Your task to perform on an android device: see sites visited before in the chrome app Image 0: 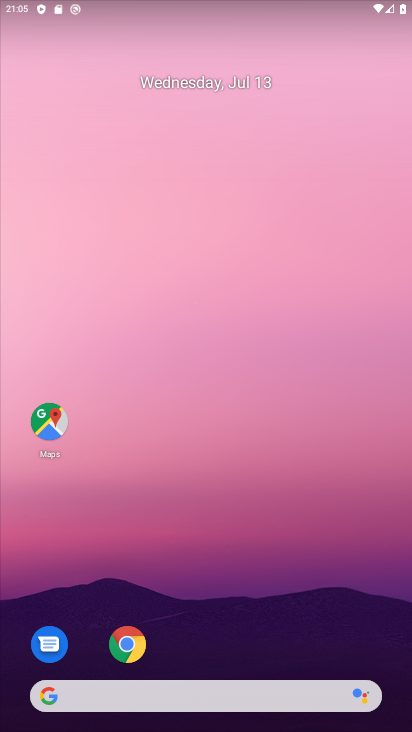
Step 0: click (129, 636)
Your task to perform on an android device: see sites visited before in the chrome app Image 1: 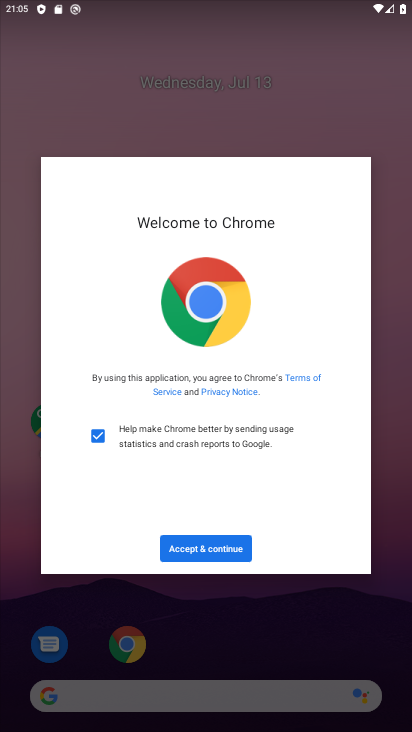
Step 1: click (196, 551)
Your task to perform on an android device: see sites visited before in the chrome app Image 2: 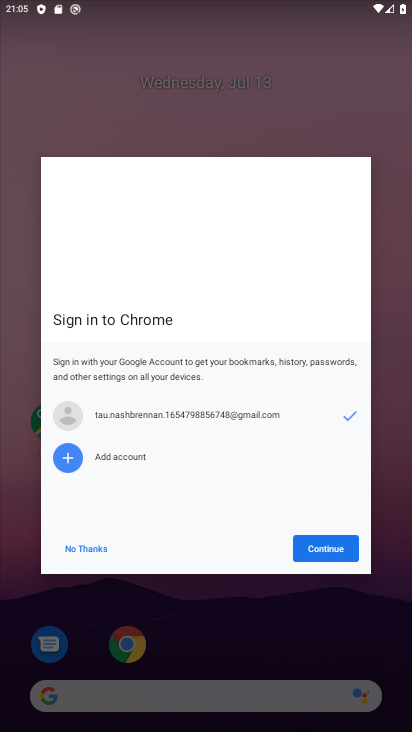
Step 2: click (308, 546)
Your task to perform on an android device: see sites visited before in the chrome app Image 3: 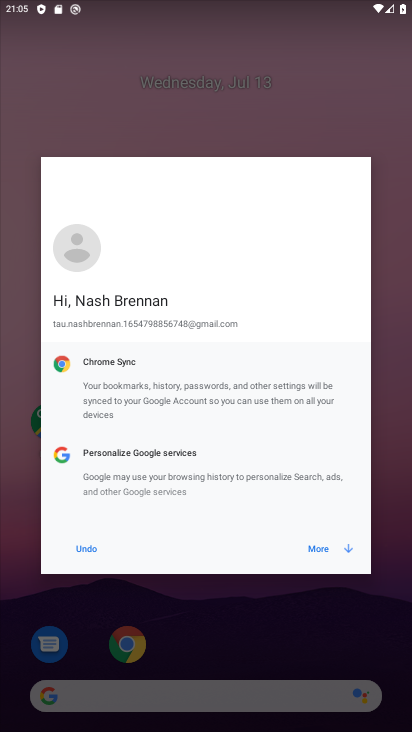
Step 3: click (308, 546)
Your task to perform on an android device: see sites visited before in the chrome app Image 4: 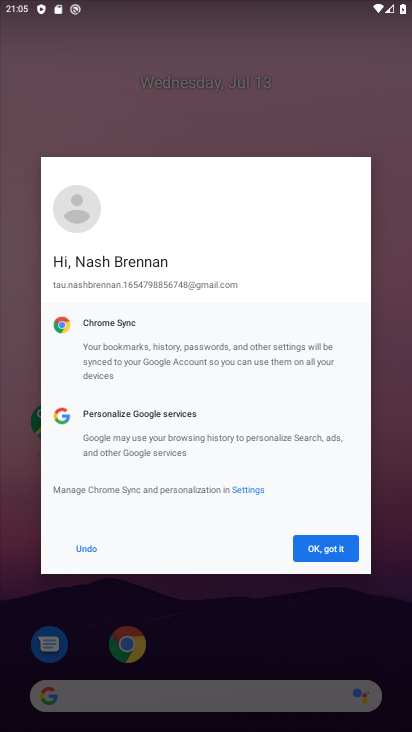
Step 4: click (337, 544)
Your task to perform on an android device: see sites visited before in the chrome app Image 5: 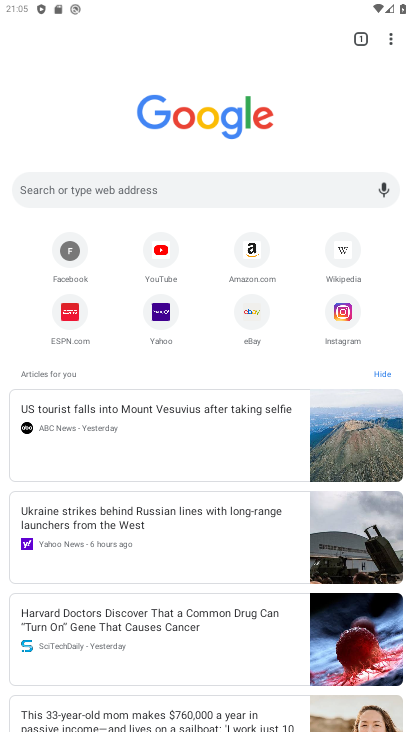
Step 5: click (391, 34)
Your task to perform on an android device: see sites visited before in the chrome app Image 6: 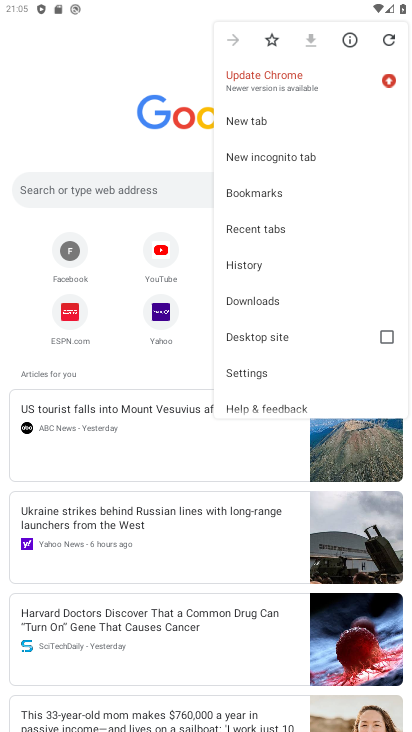
Step 6: click (274, 279)
Your task to perform on an android device: see sites visited before in the chrome app Image 7: 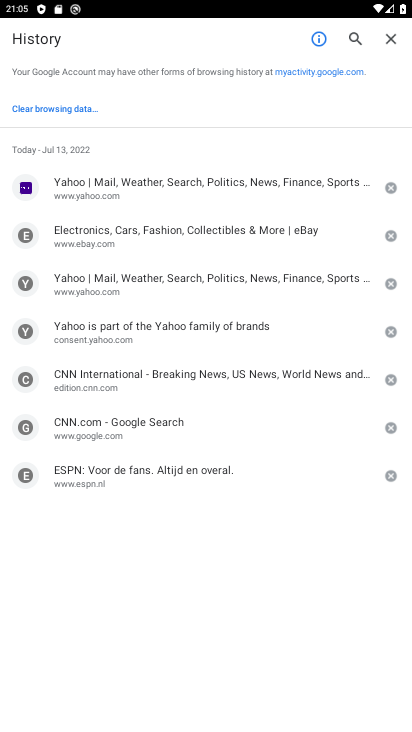
Step 7: task complete